Your task to perform on an android device: open a bookmark in the chrome app Image 0: 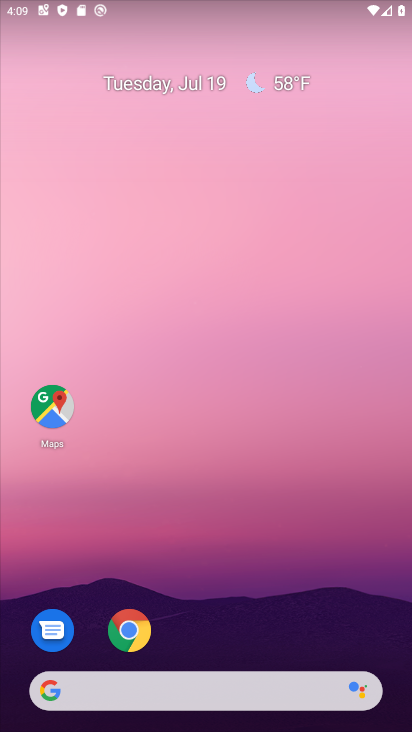
Step 0: click (133, 634)
Your task to perform on an android device: open a bookmark in the chrome app Image 1: 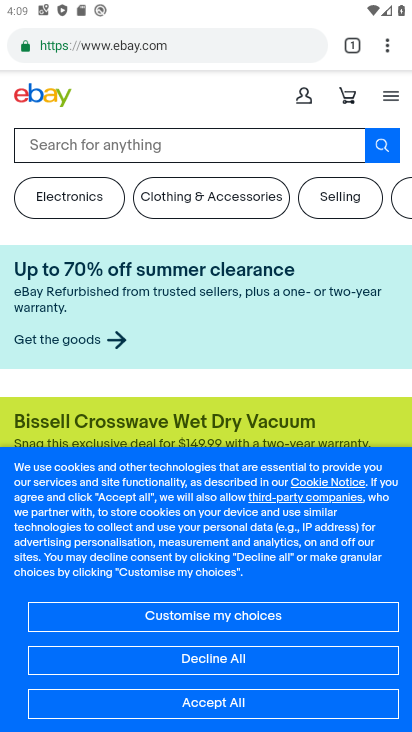
Step 1: drag from (384, 47) to (295, 171)
Your task to perform on an android device: open a bookmark in the chrome app Image 2: 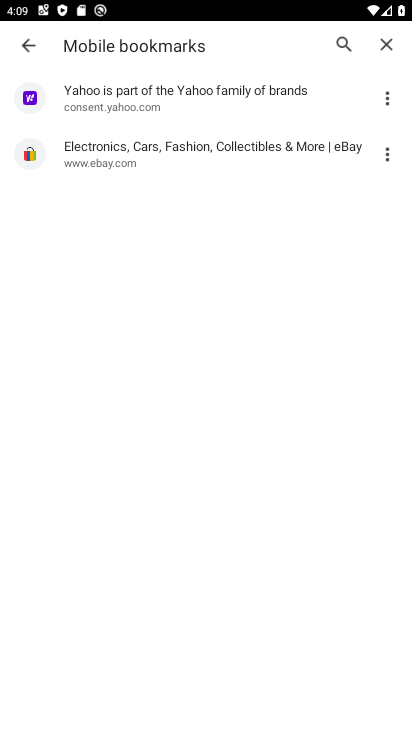
Step 2: click (220, 103)
Your task to perform on an android device: open a bookmark in the chrome app Image 3: 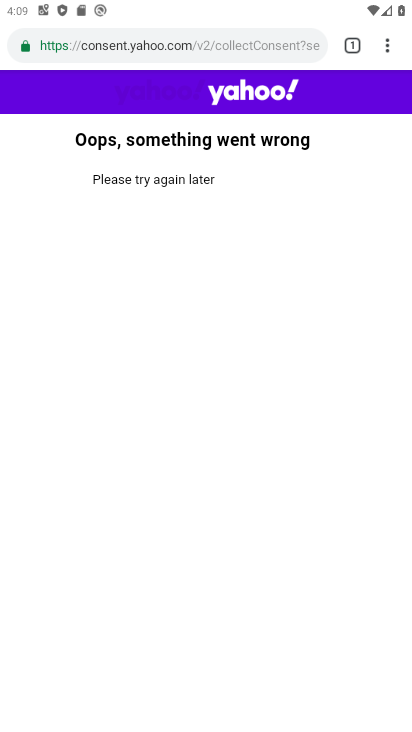
Step 3: task complete